Your task to perform on an android device: check out phone information Image 0: 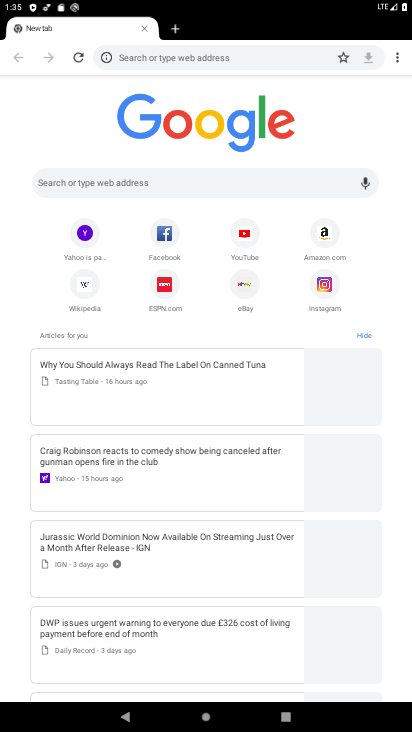
Step 0: press home button
Your task to perform on an android device: check out phone information Image 1: 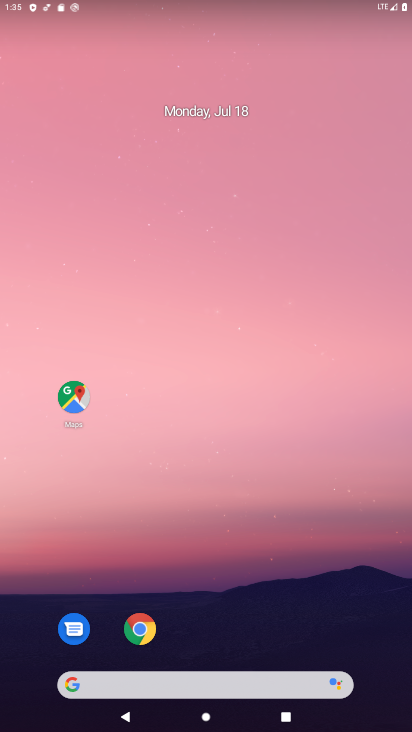
Step 1: drag from (241, 562) to (226, 201)
Your task to perform on an android device: check out phone information Image 2: 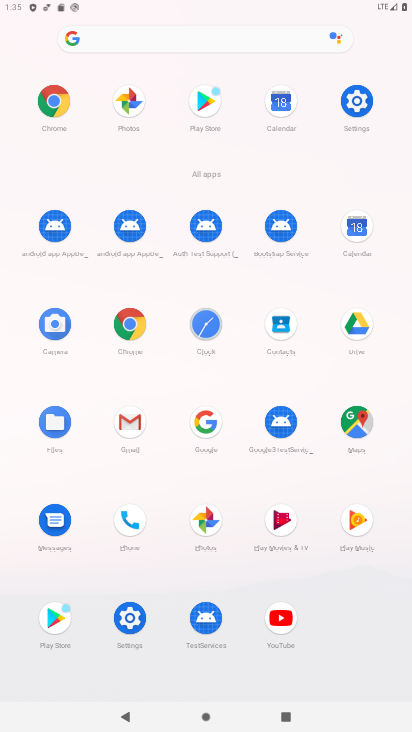
Step 2: click (124, 617)
Your task to perform on an android device: check out phone information Image 3: 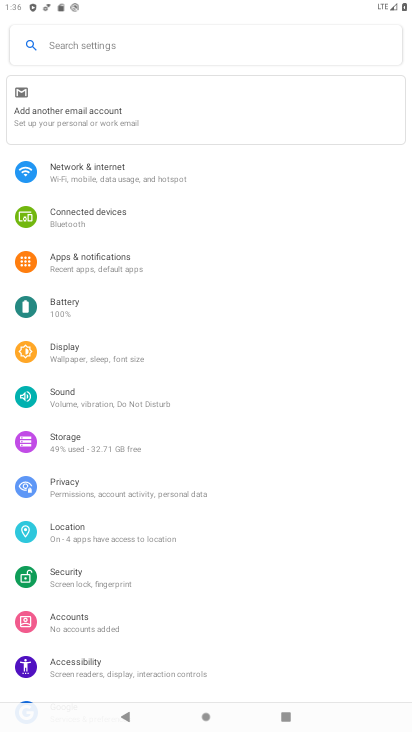
Step 3: drag from (102, 641) to (129, 373)
Your task to perform on an android device: check out phone information Image 4: 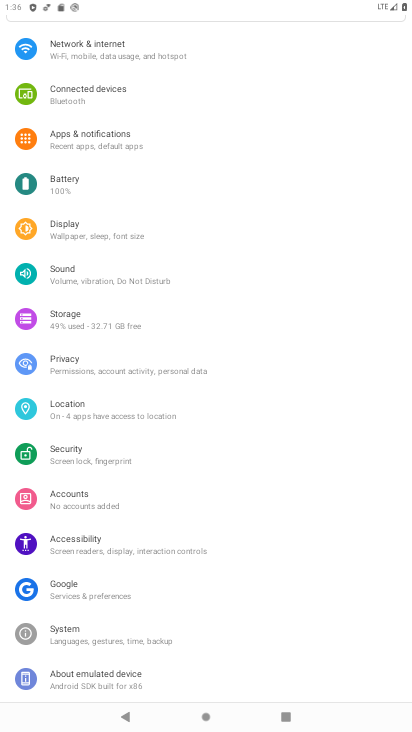
Step 4: click (116, 681)
Your task to perform on an android device: check out phone information Image 5: 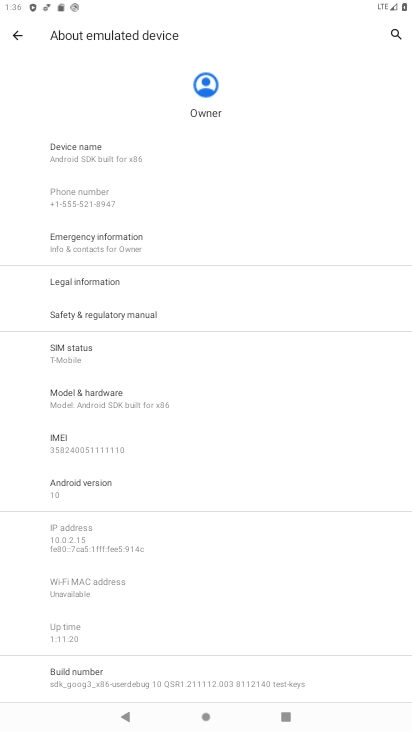
Step 5: task complete